Your task to perform on an android device: Go to notification settings Image 0: 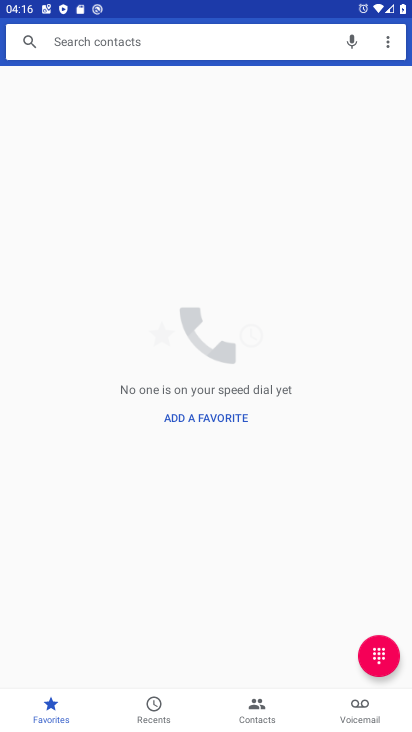
Step 0: press home button
Your task to perform on an android device: Go to notification settings Image 1: 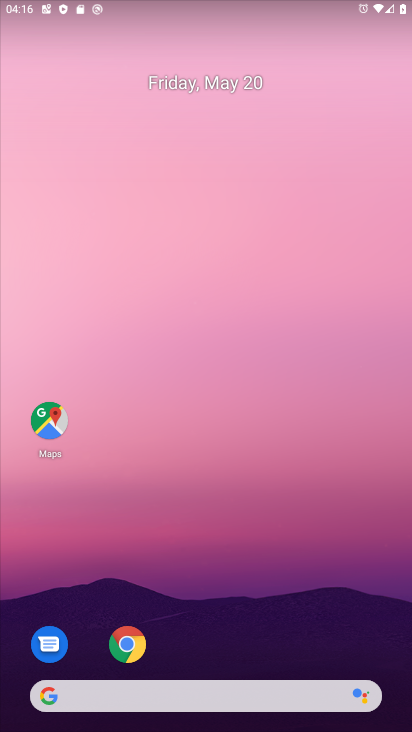
Step 1: drag from (255, 618) to (12, 33)
Your task to perform on an android device: Go to notification settings Image 2: 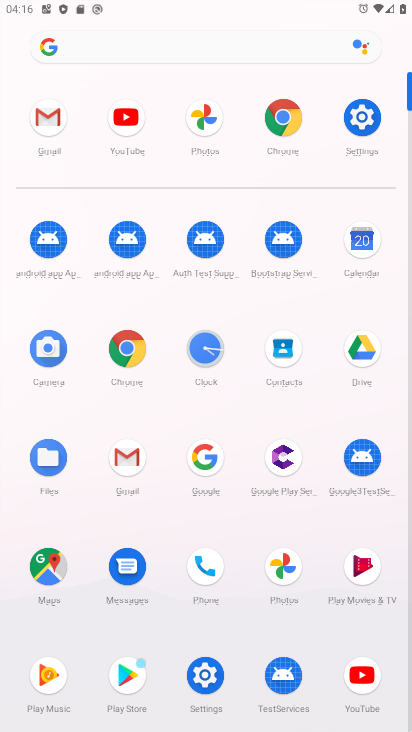
Step 2: click (359, 132)
Your task to perform on an android device: Go to notification settings Image 3: 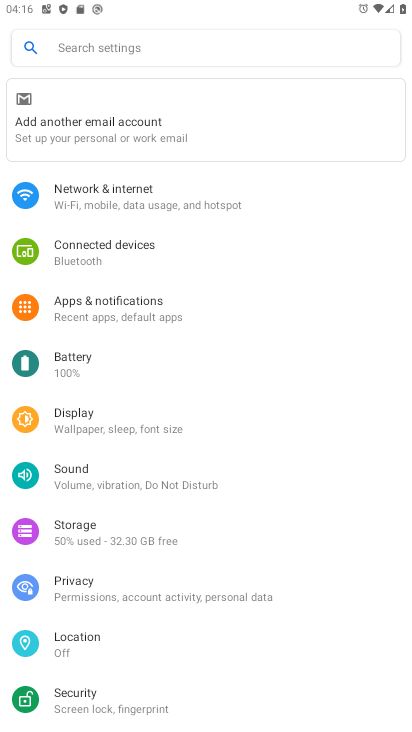
Step 3: click (179, 320)
Your task to perform on an android device: Go to notification settings Image 4: 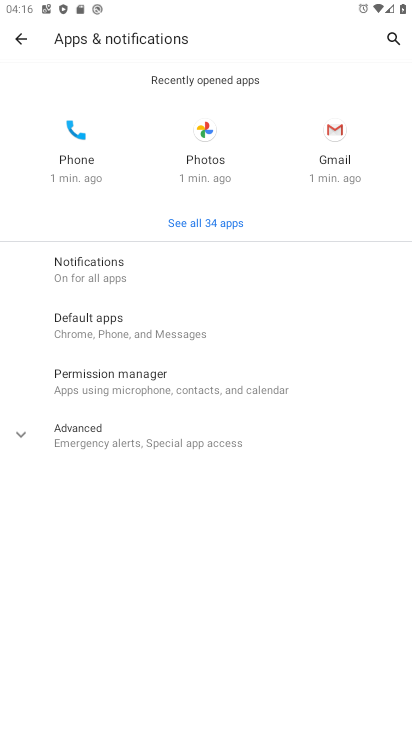
Step 4: task complete